Your task to perform on an android device: change alarm snooze length Image 0: 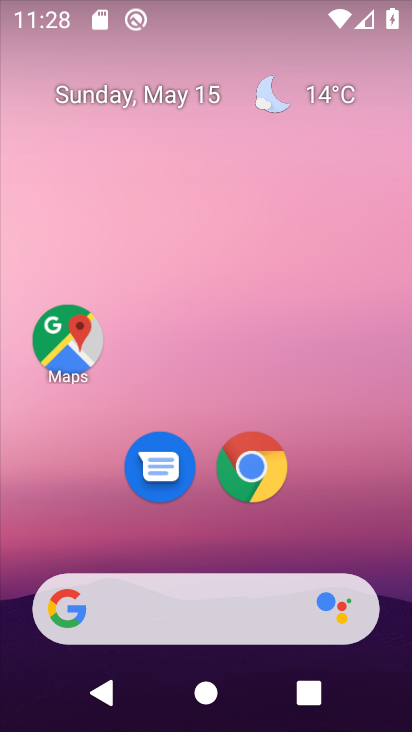
Step 0: drag from (208, 536) to (67, 0)
Your task to perform on an android device: change alarm snooze length Image 1: 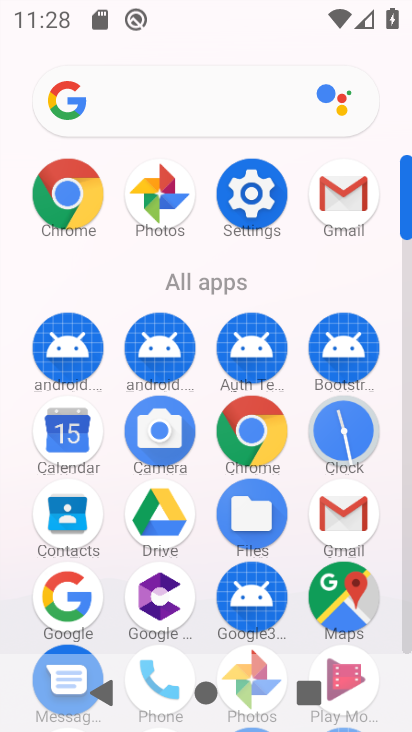
Step 1: click (341, 424)
Your task to perform on an android device: change alarm snooze length Image 2: 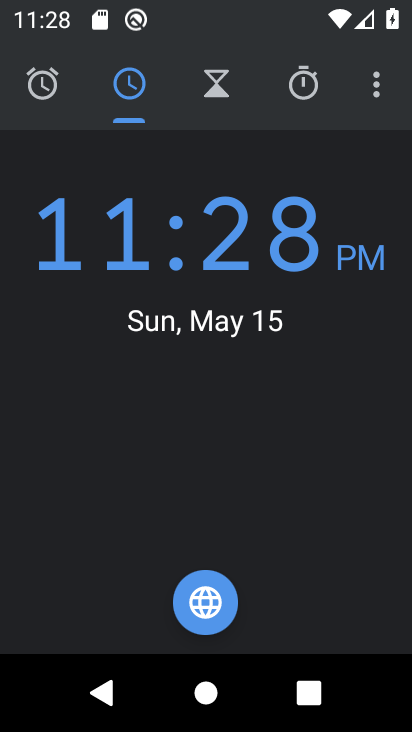
Step 2: click (378, 80)
Your task to perform on an android device: change alarm snooze length Image 3: 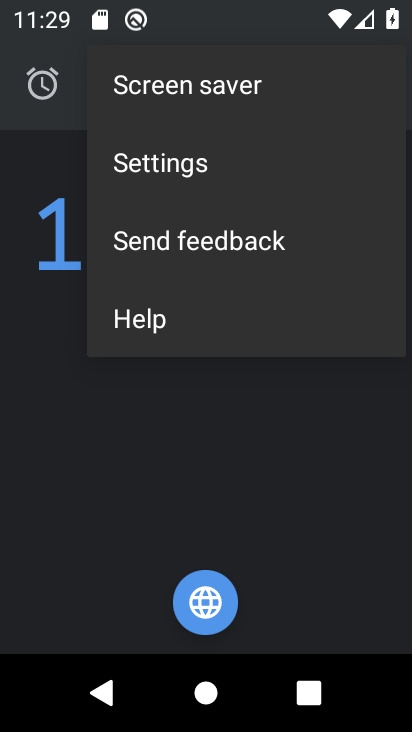
Step 3: click (239, 162)
Your task to perform on an android device: change alarm snooze length Image 4: 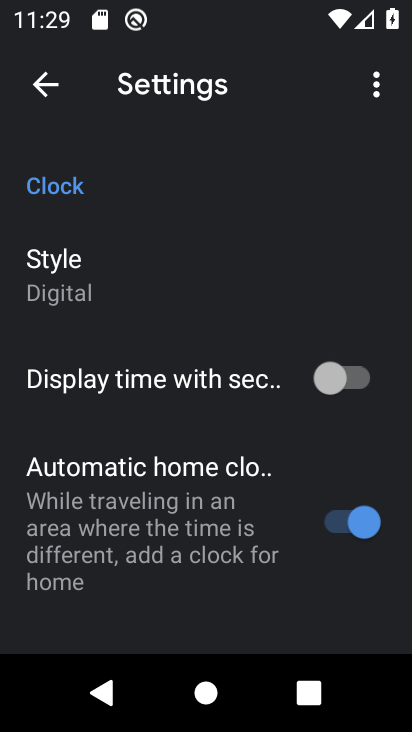
Step 4: drag from (209, 612) to (259, 7)
Your task to perform on an android device: change alarm snooze length Image 5: 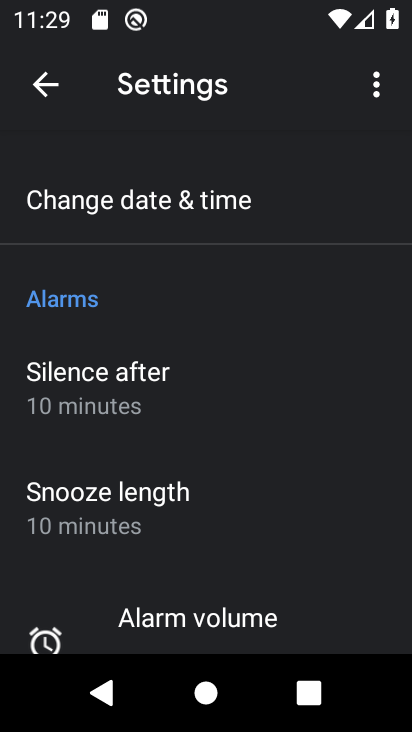
Step 5: click (164, 511)
Your task to perform on an android device: change alarm snooze length Image 6: 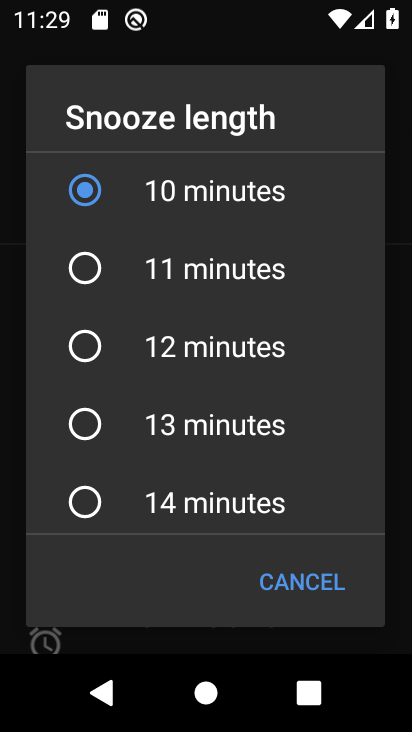
Step 6: click (89, 269)
Your task to perform on an android device: change alarm snooze length Image 7: 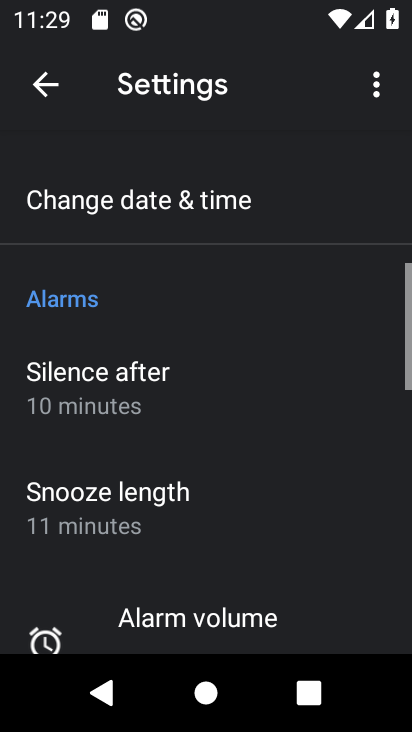
Step 7: task complete